Your task to perform on an android device: Open wifi settings Image 0: 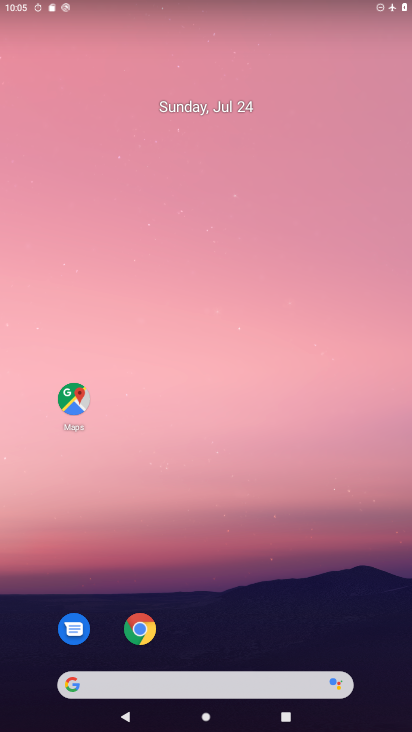
Step 0: drag from (225, 661) to (256, 384)
Your task to perform on an android device: Open wifi settings Image 1: 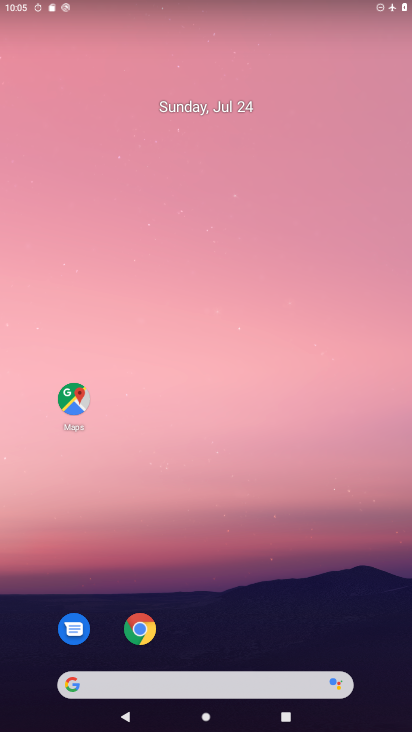
Step 1: drag from (245, 663) to (298, 69)
Your task to perform on an android device: Open wifi settings Image 2: 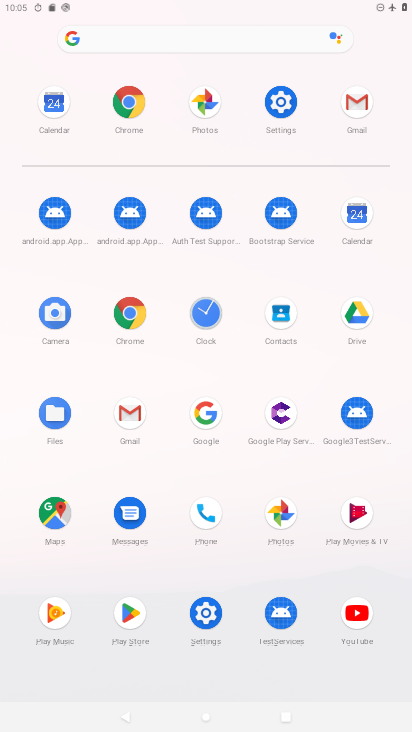
Step 2: click (273, 120)
Your task to perform on an android device: Open wifi settings Image 3: 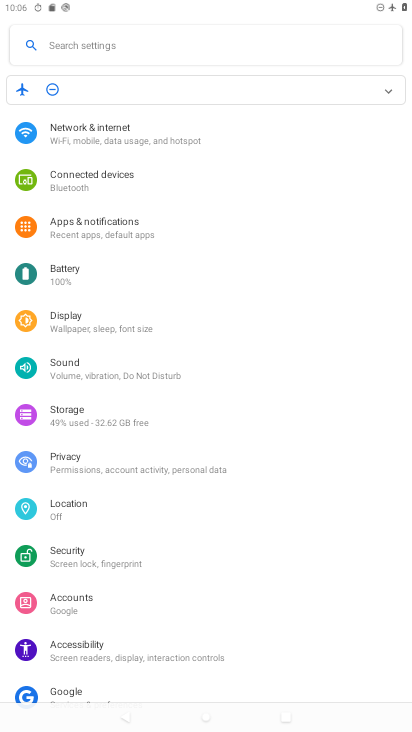
Step 3: click (175, 134)
Your task to perform on an android device: Open wifi settings Image 4: 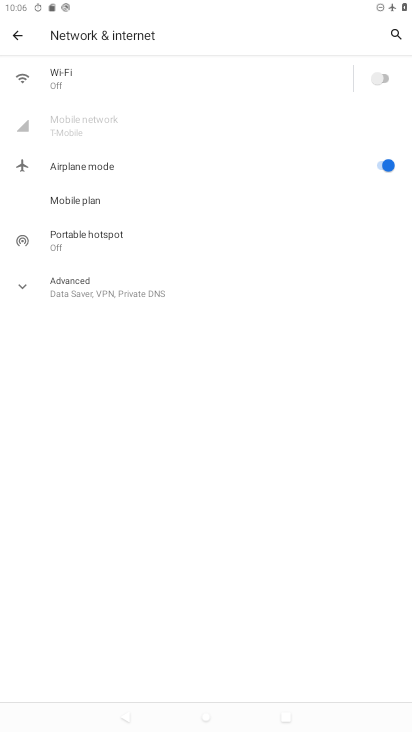
Step 4: click (101, 94)
Your task to perform on an android device: Open wifi settings Image 5: 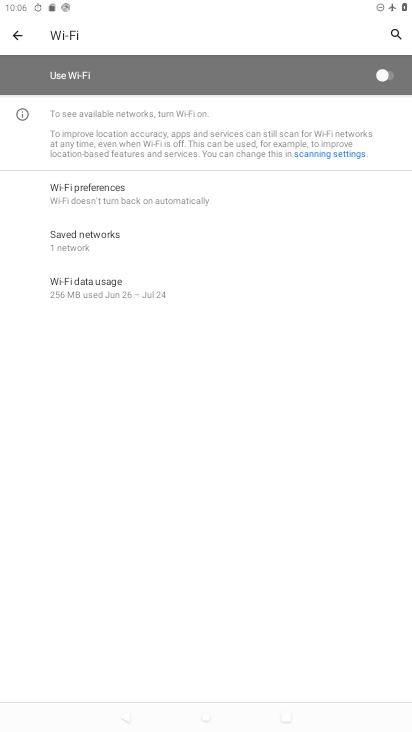
Step 5: task complete